Your task to perform on an android device: turn off sleep mode Image 0: 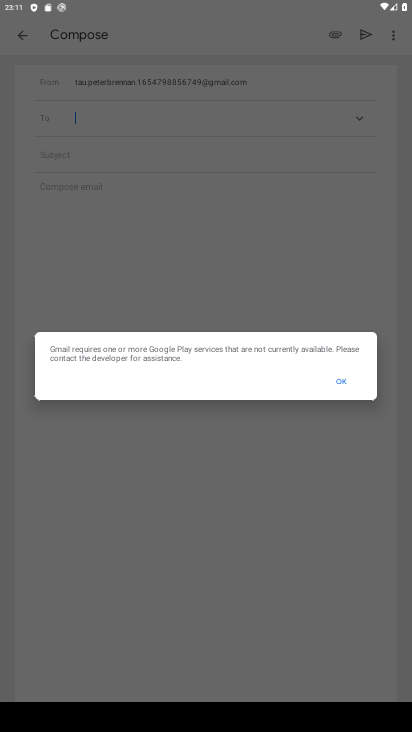
Step 0: press home button
Your task to perform on an android device: turn off sleep mode Image 1: 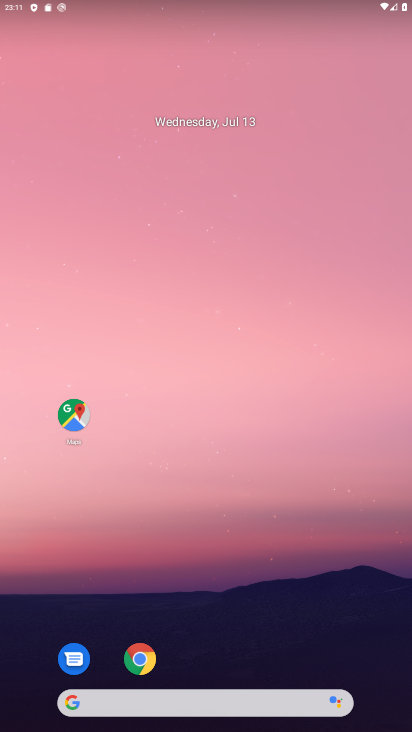
Step 1: drag from (342, 657) to (300, 175)
Your task to perform on an android device: turn off sleep mode Image 2: 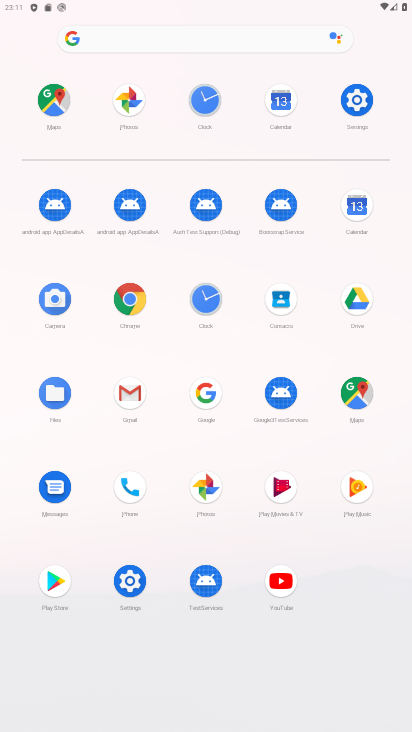
Step 2: click (126, 582)
Your task to perform on an android device: turn off sleep mode Image 3: 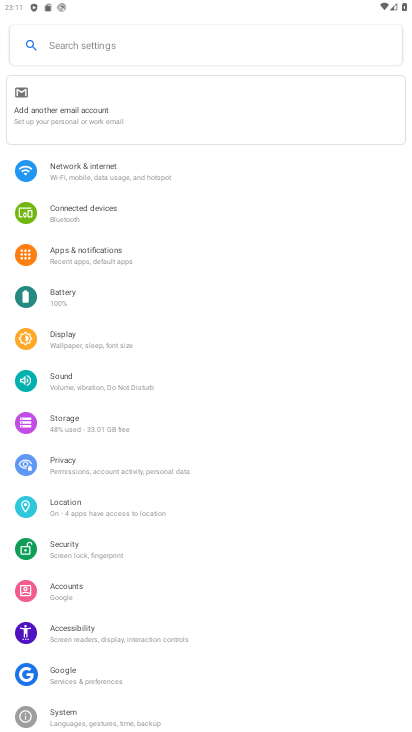
Step 3: click (68, 338)
Your task to perform on an android device: turn off sleep mode Image 4: 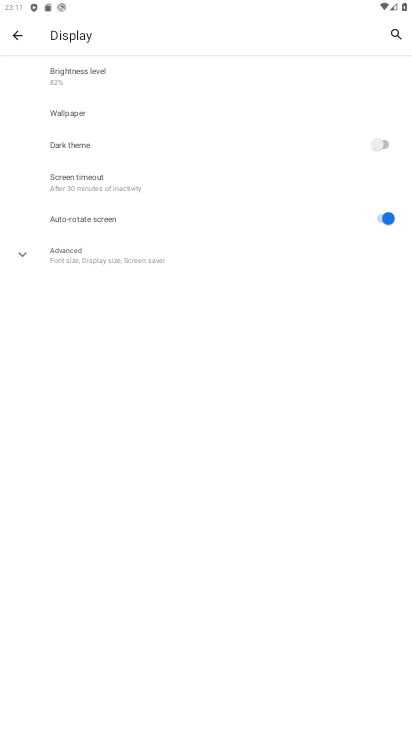
Step 4: click (21, 246)
Your task to perform on an android device: turn off sleep mode Image 5: 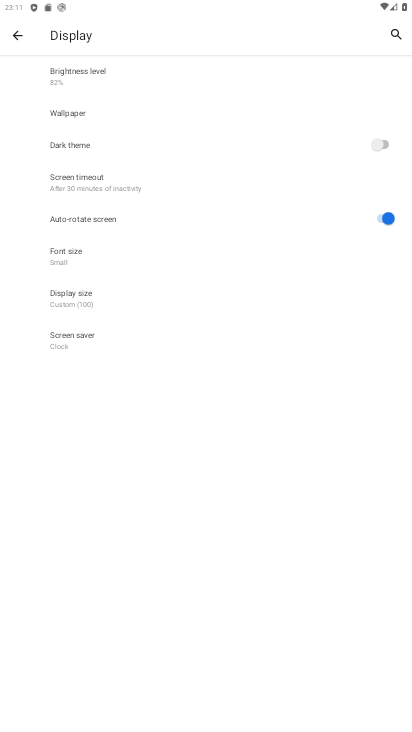
Step 5: task complete